Your task to perform on an android device: turn on sleep mode Image 0: 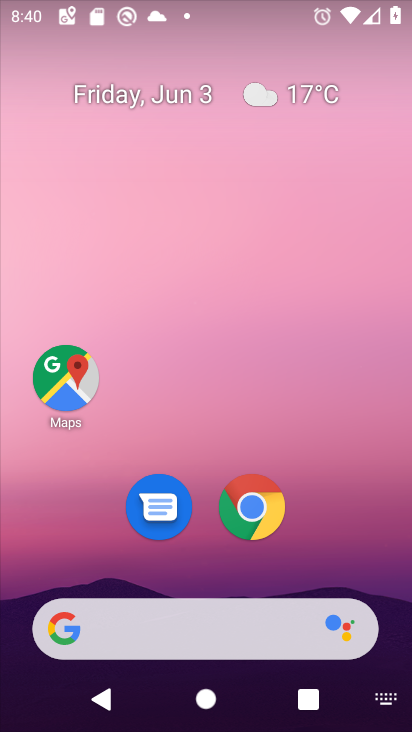
Step 0: drag from (381, 555) to (186, 32)
Your task to perform on an android device: turn on sleep mode Image 1: 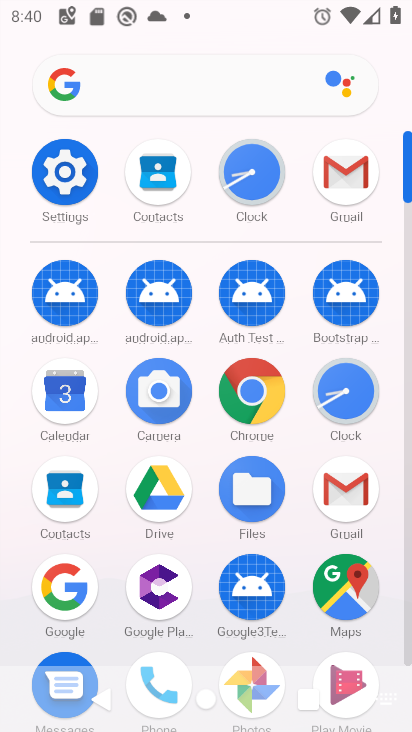
Step 1: click (66, 173)
Your task to perform on an android device: turn on sleep mode Image 2: 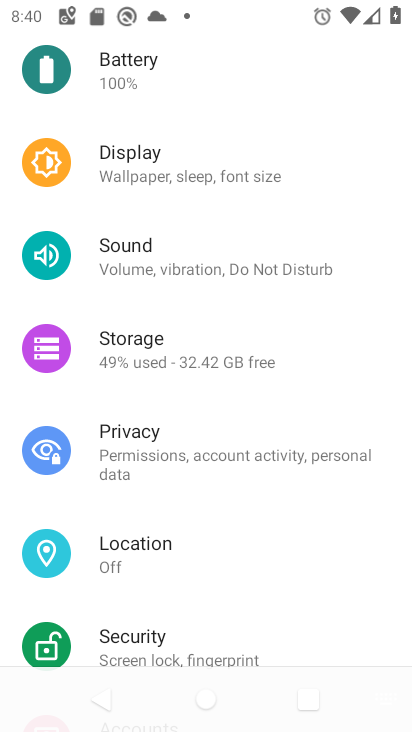
Step 2: click (206, 171)
Your task to perform on an android device: turn on sleep mode Image 3: 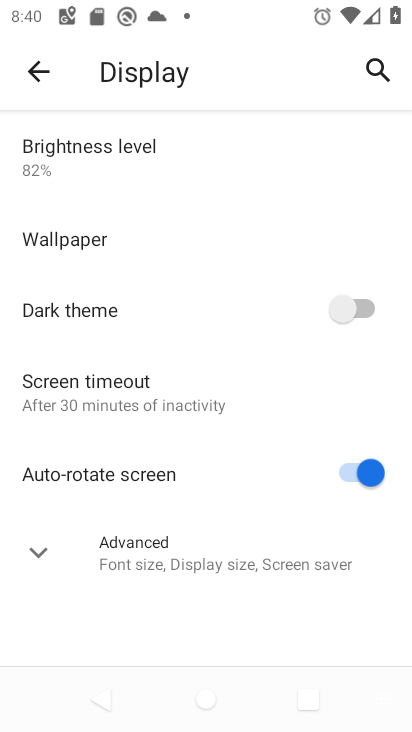
Step 3: task complete